Your task to perform on an android device: Open the web browser Image 0: 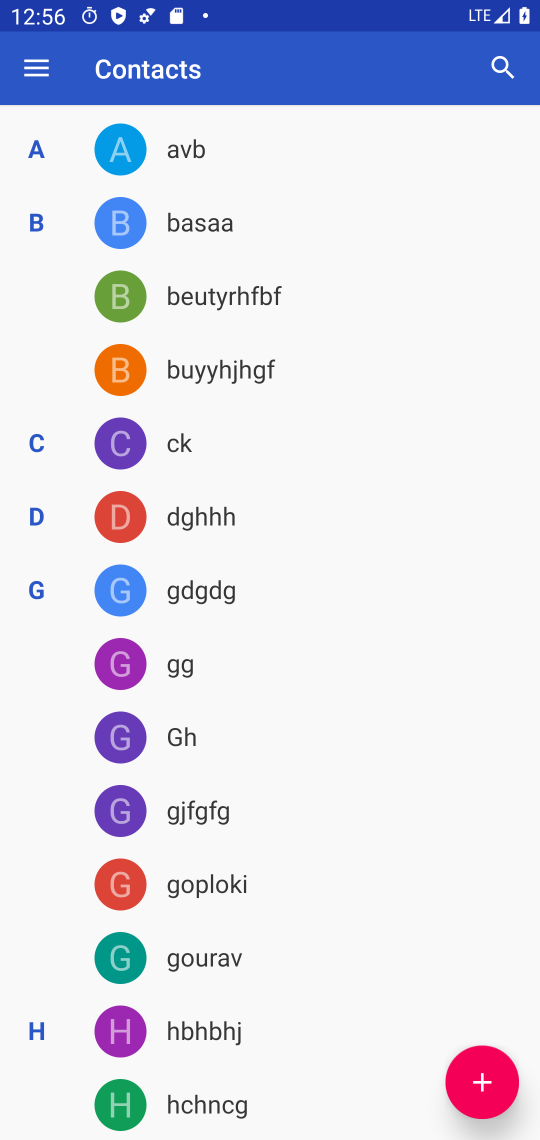
Step 0: press home button
Your task to perform on an android device: Open the web browser Image 1: 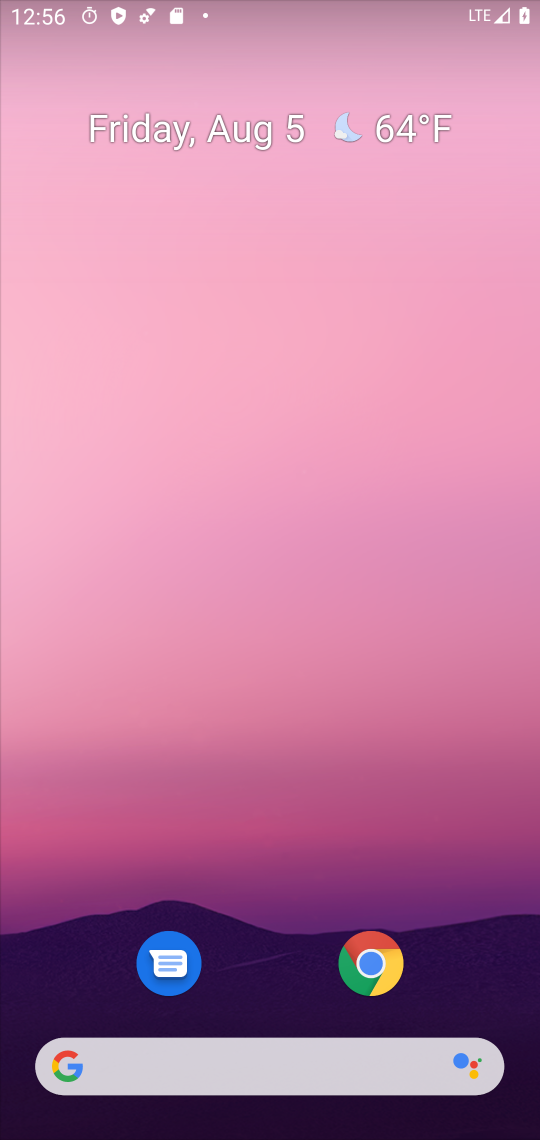
Step 1: drag from (286, 931) to (385, 5)
Your task to perform on an android device: Open the web browser Image 2: 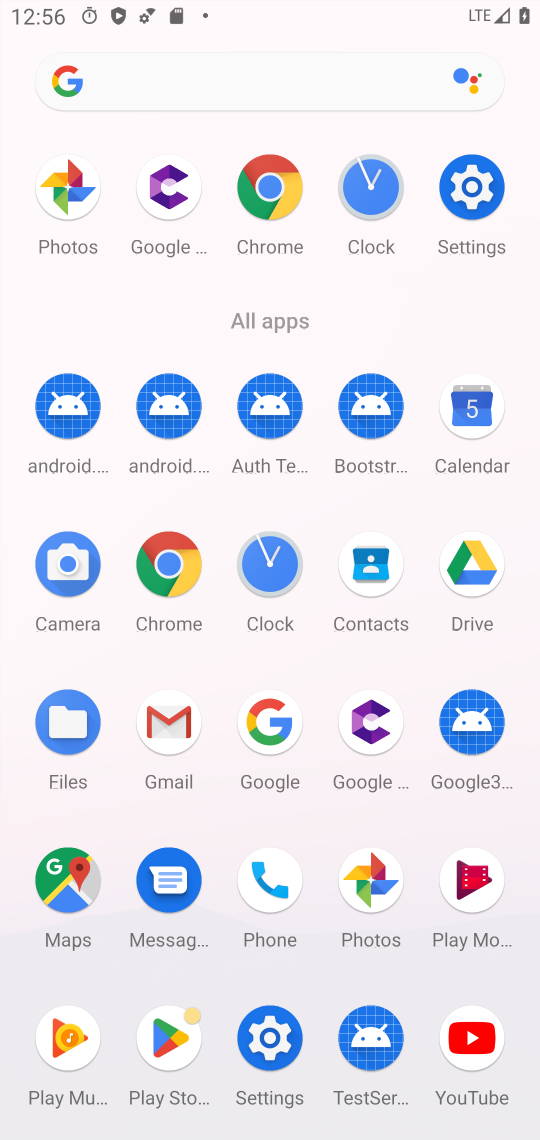
Step 2: click (281, 208)
Your task to perform on an android device: Open the web browser Image 3: 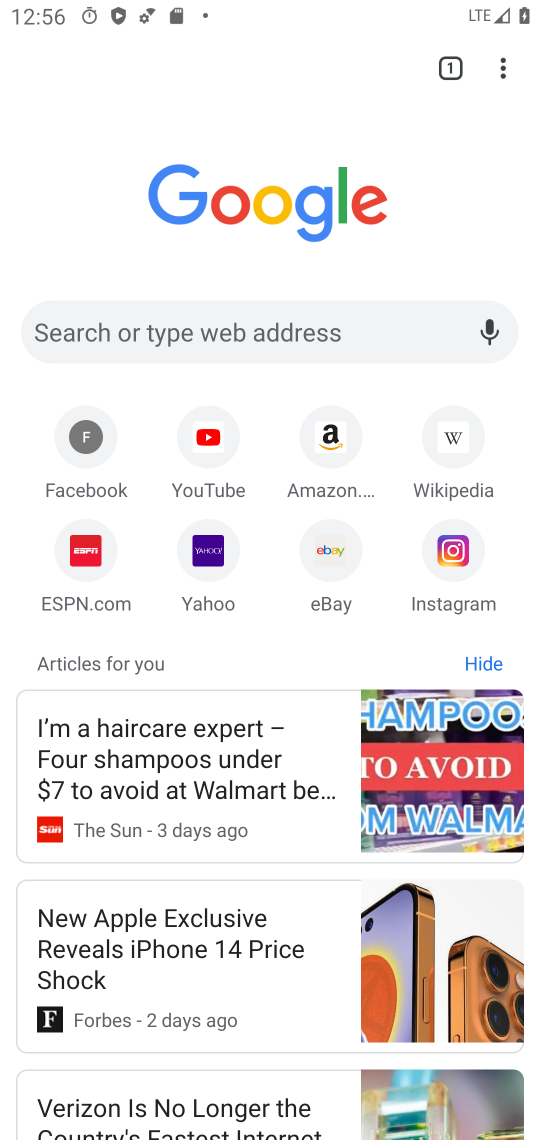
Step 3: task complete